Your task to perform on an android device: Show me the alarms in the clock app Image 0: 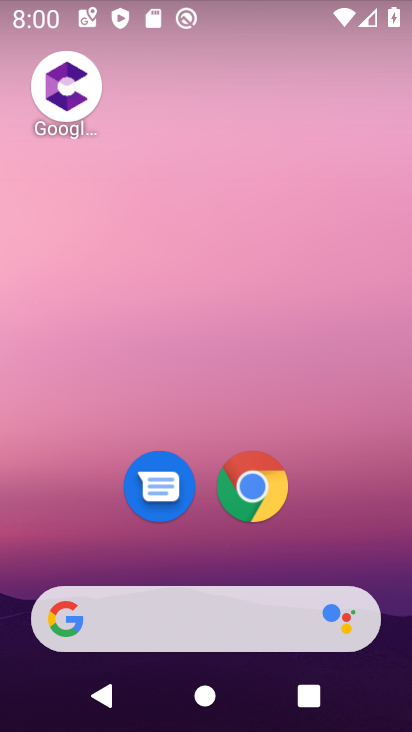
Step 0: drag from (181, 520) to (282, 6)
Your task to perform on an android device: Show me the alarms in the clock app Image 1: 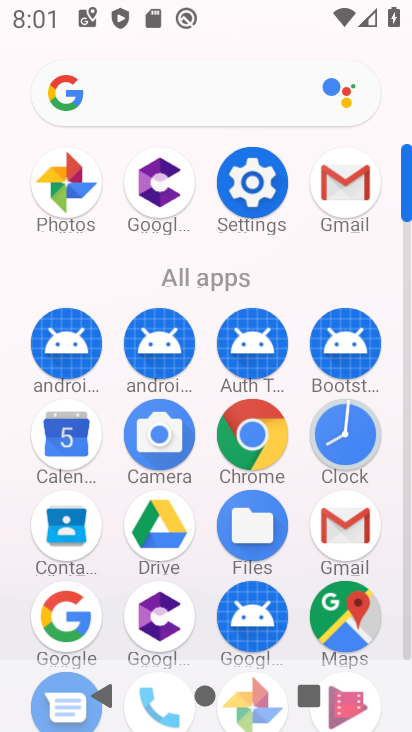
Step 1: click (367, 432)
Your task to perform on an android device: Show me the alarms in the clock app Image 2: 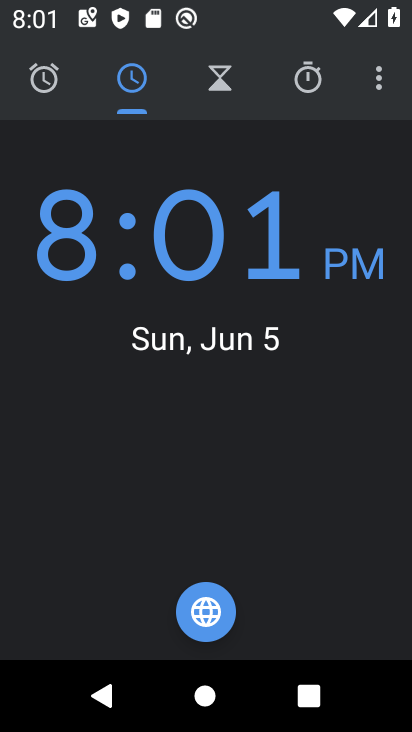
Step 2: click (57, 84)
Your task to perform on an android device: Show me the alarms in the clock app Image 3: 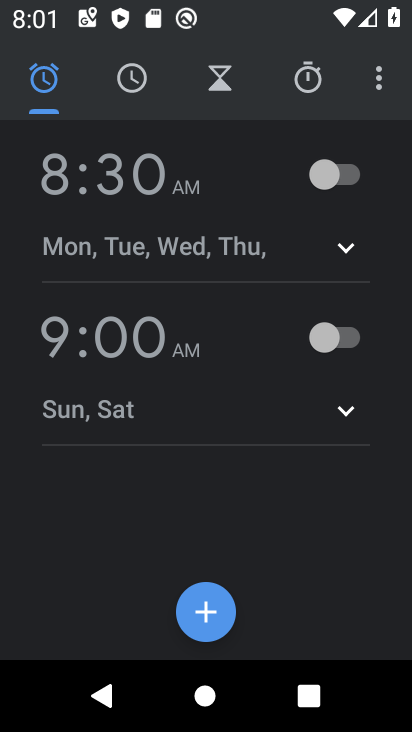
Step 3: task complete